Your task to perform on an android device: Go to internet settings Image 0: 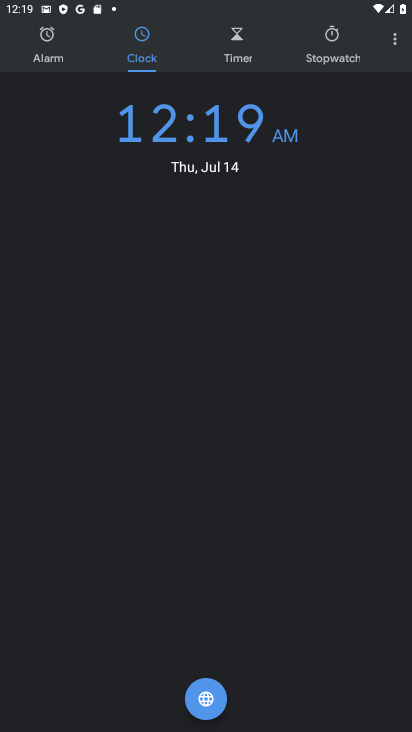
Step 0: drag from (282, 591) to (282, 6)
Your task to perform on an android device: Go to internet settings Image 1: 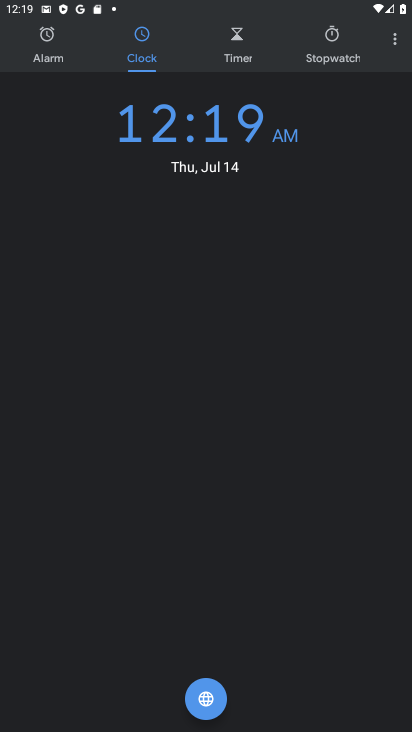
Step 1: press home button
Your task to perform on an android device: Go to internet settings Image 2: 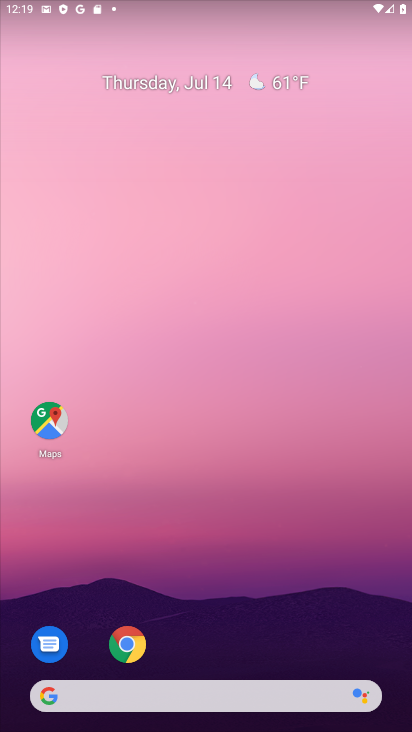
Step 2: drag from (228, 568) to (341, 11)
Your task to perform on an android device: Go to internet settings Image 3: 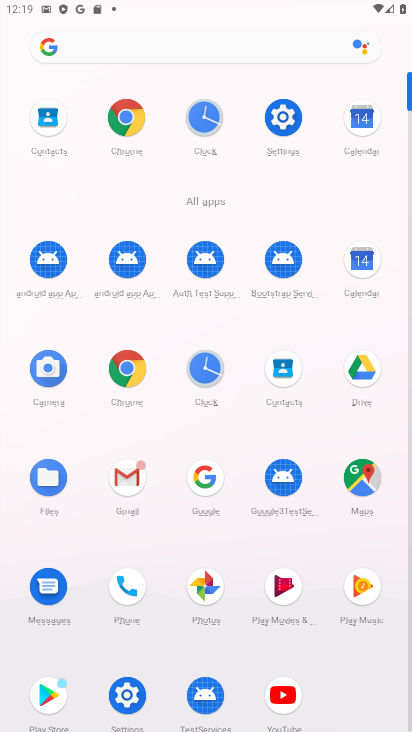
Step 3: click (279, 113)
Your task to perform on an android device: Go to internet settings Image 4: 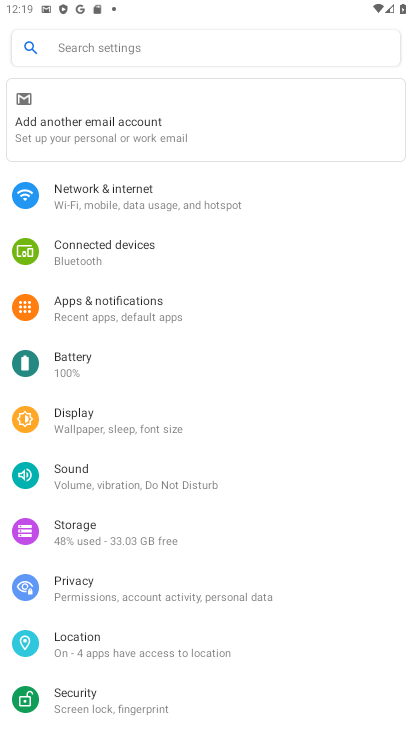
Step 4: click (122, 201)
Your task to perform on an android device: Go to internet settings Image 5: 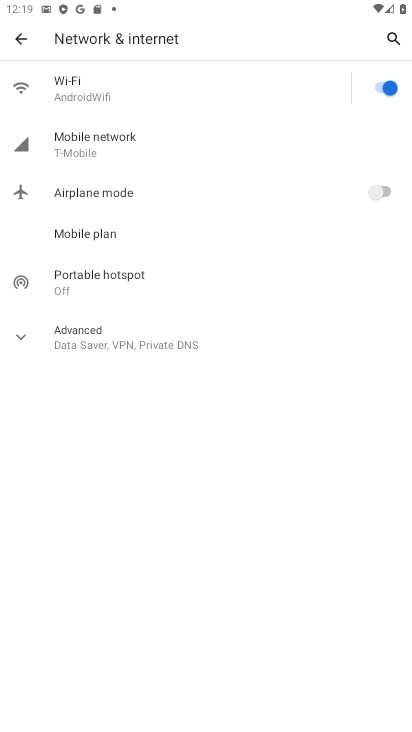
Step 5: click (118, 147)
Your task to perform on an android device: Go to internet settings Image 6: 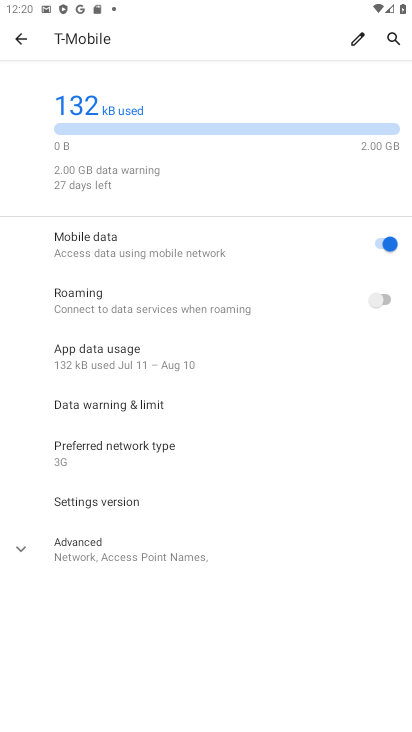
Step 6: task complete